Your task to perform on an android device: When is my next appointment? Image 0: 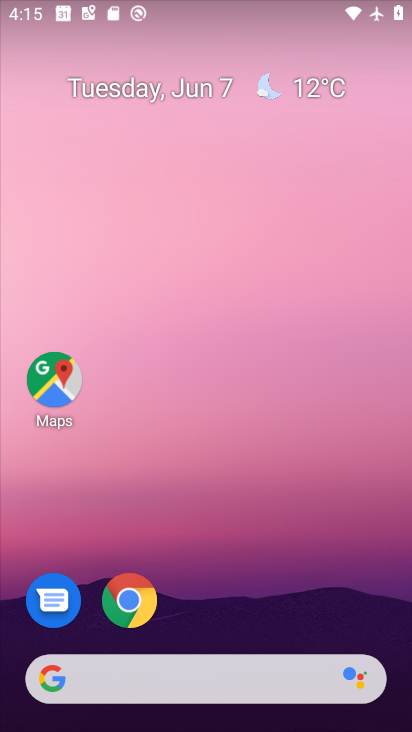
Step 0: drag from (277, 447) to (306, 167)
Your task to perform on an android device: When is my next appointment? Image 1: 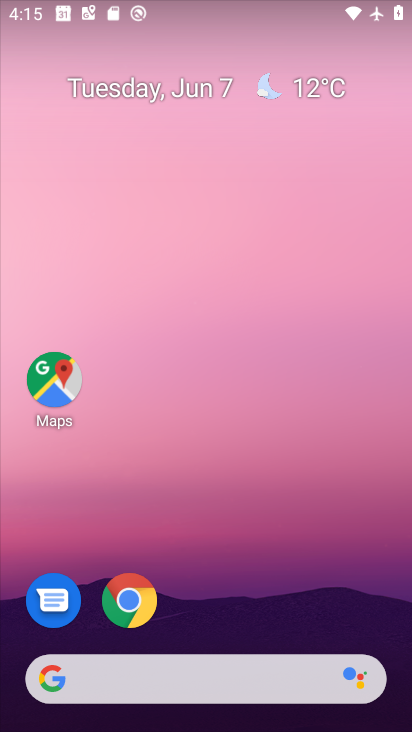
Step 1: drag from (229, 559) to (258, 180)
Your task to perform on an android device: When is my next appointment? Image 2: 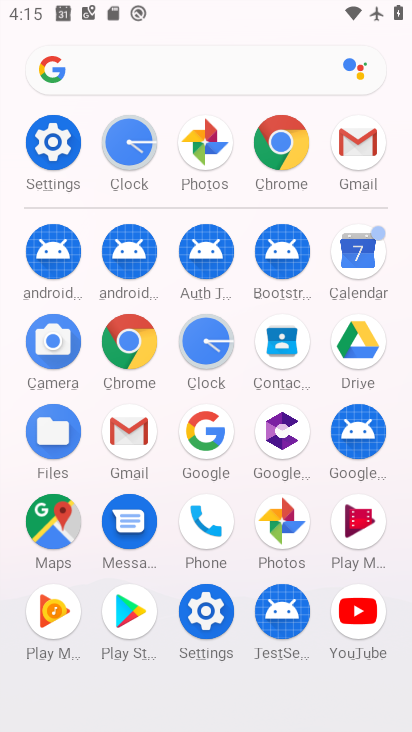
Step 2: click (371, 261)
Your task to perform on an android device: When is my next appointment? Image 3: 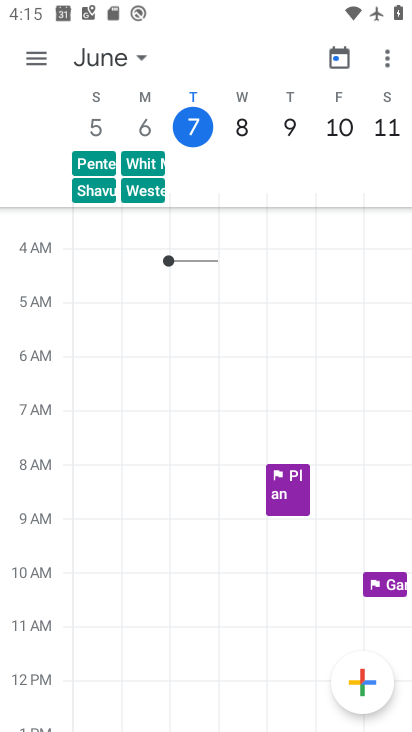
Step 3: task complete